Your task to perform on an android device: Clear all items from cart on newegg. Image 0: 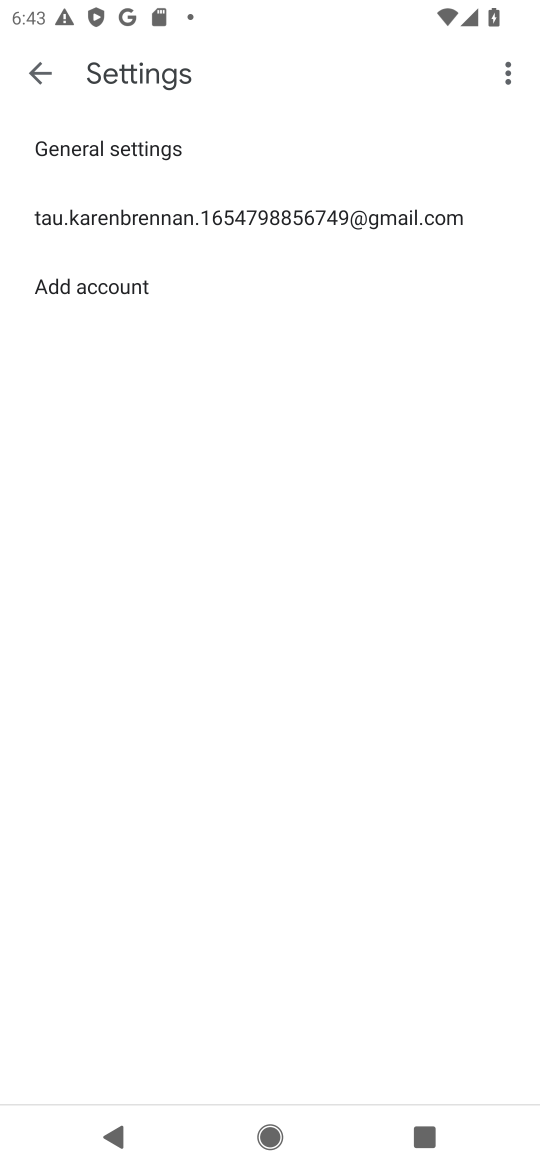
Step 0: press home button
Your task to perform on an android device: Clear all items from cart on newegg. Image 1: 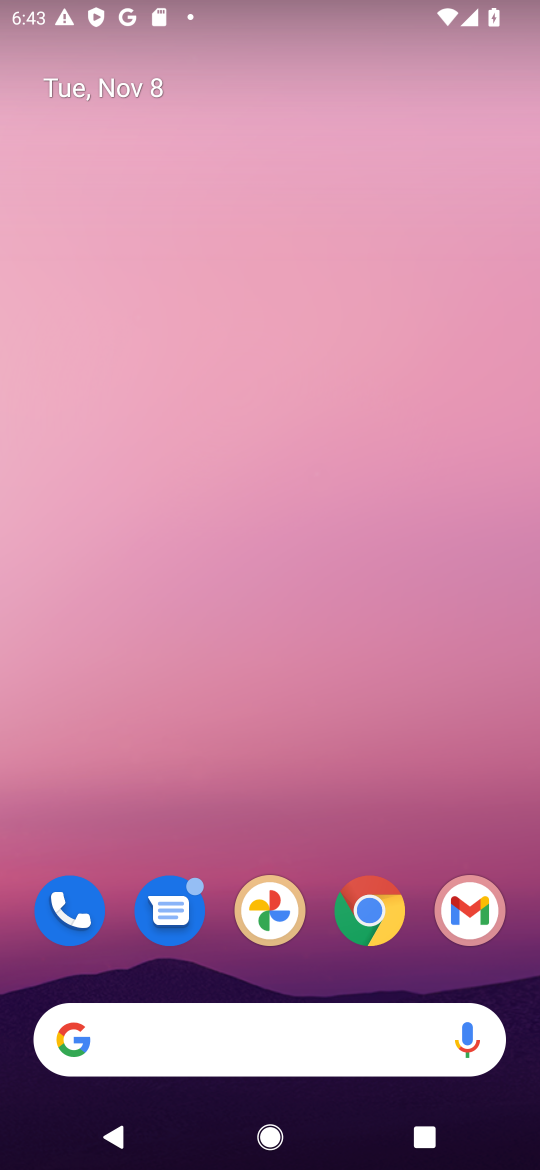
Step 1: click (364, 918)
Your task to perform on an android device: Clear all items from cart on newegg. Image 2: 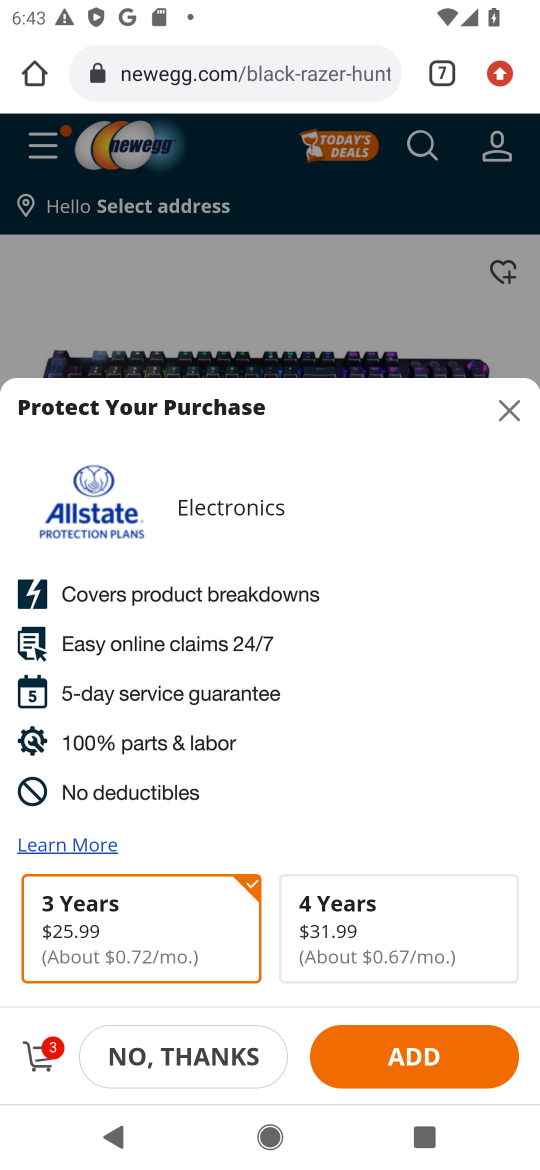
Step 2: click (498, 444)
Your task to perform on an android device: Clear all items from cart on newegg. Image 3: 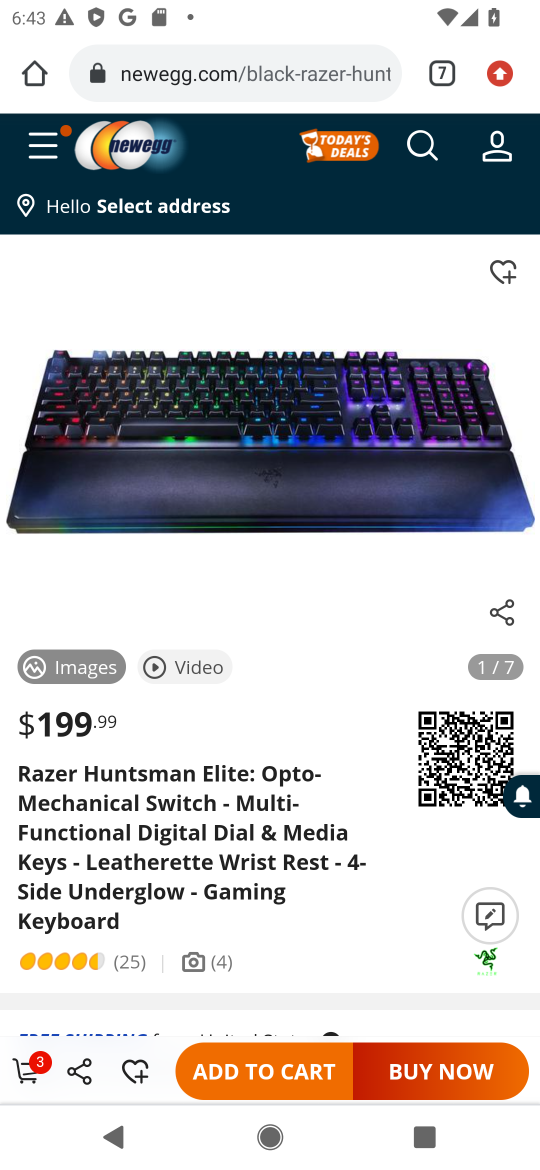
Step 3: click (33, 1075)
Your task to perform on an android device: Clear all items from cart on newegg. Image 4: 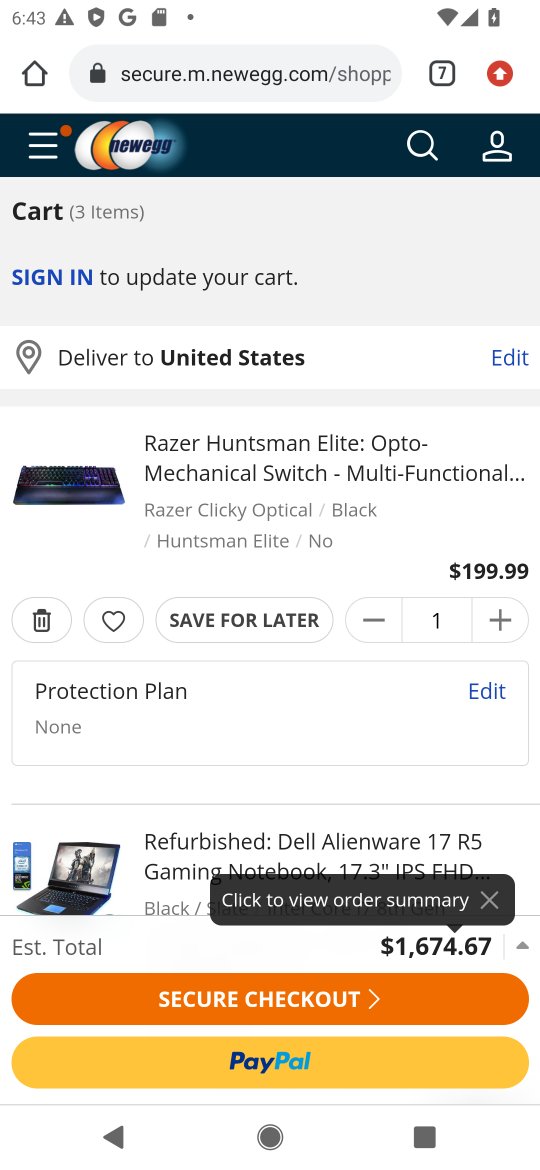
Step 4: click (38, 619)
Your task to perform on an android device: Clear all items from cart on newegg. Image 5: 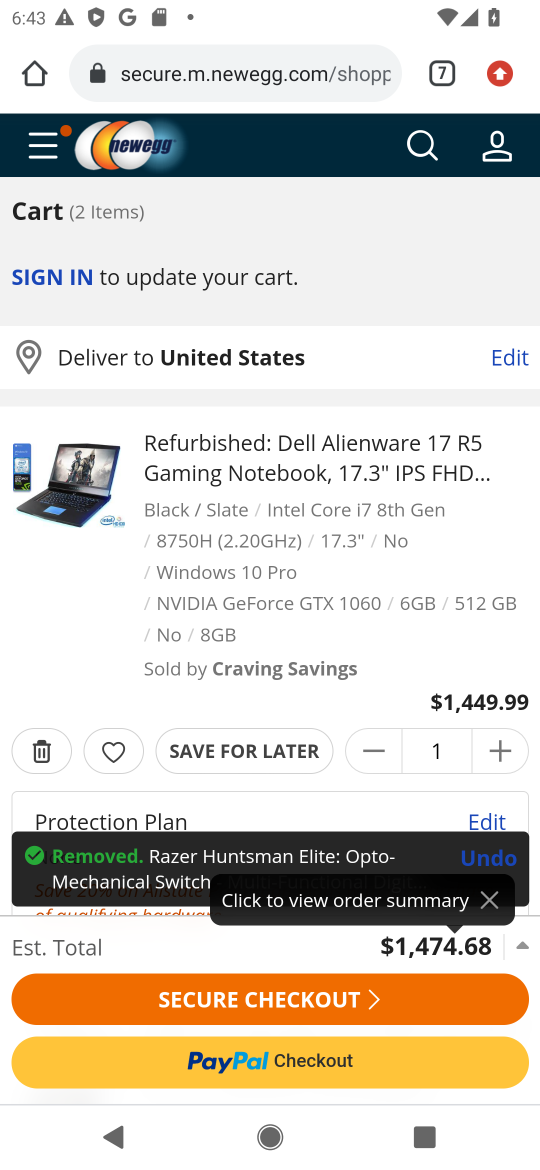
Step 5: click (37, 759)
Your task to perform on an android device: Clear all items from cart on newegg. Image 6: 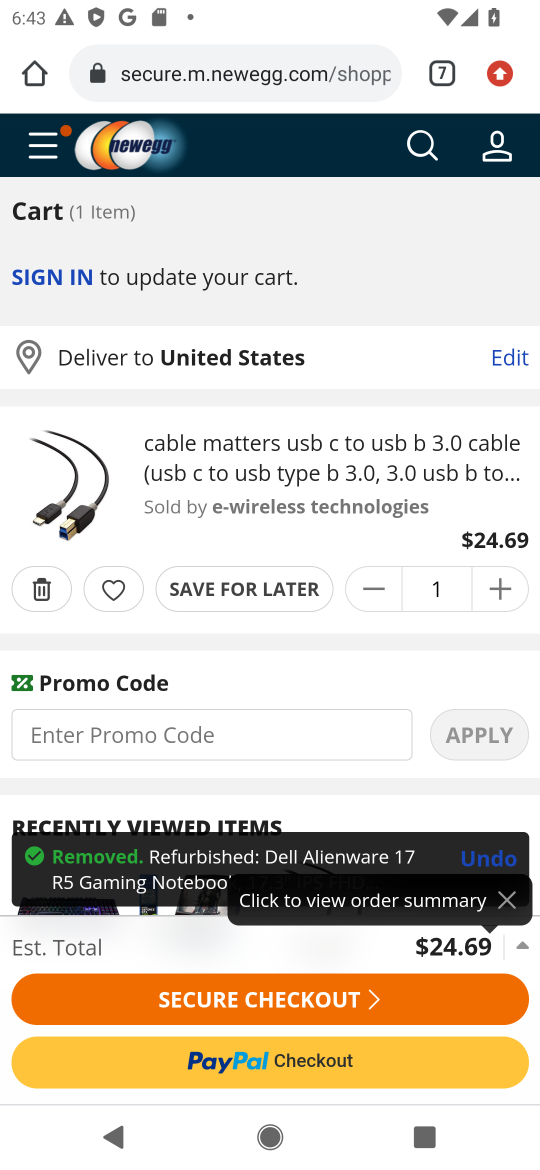
Step 6: click (39, 591)
Your task to perform on an android device: Clear all items from cart on newegg. Image 7: 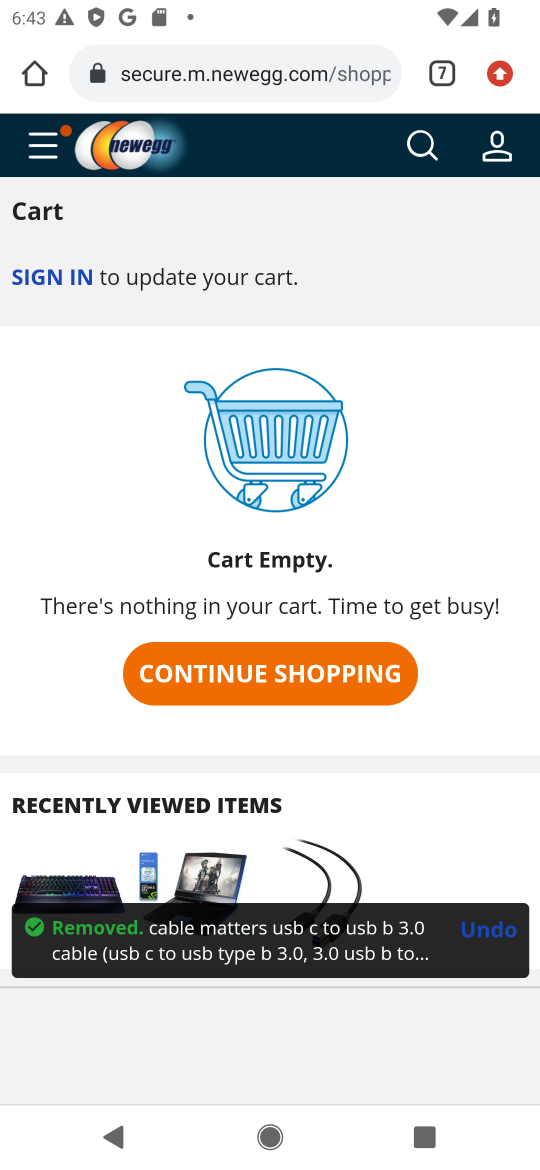
Step 7: task complete